Your task to perform on an android device: turn off location history Image 0: 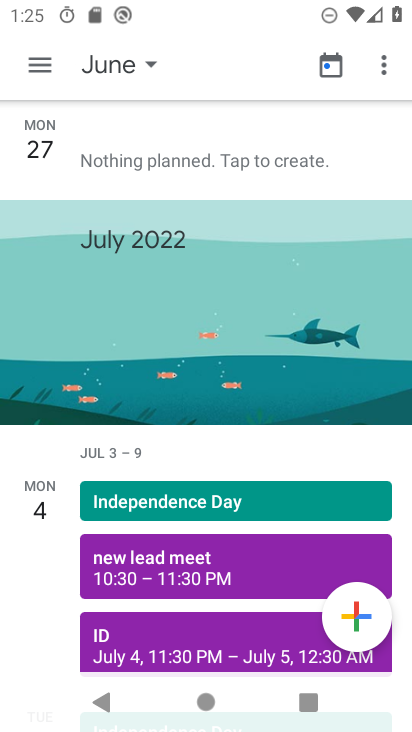
Step 0: press home button
Your task to perform on an android device: turn off location history Image 1: 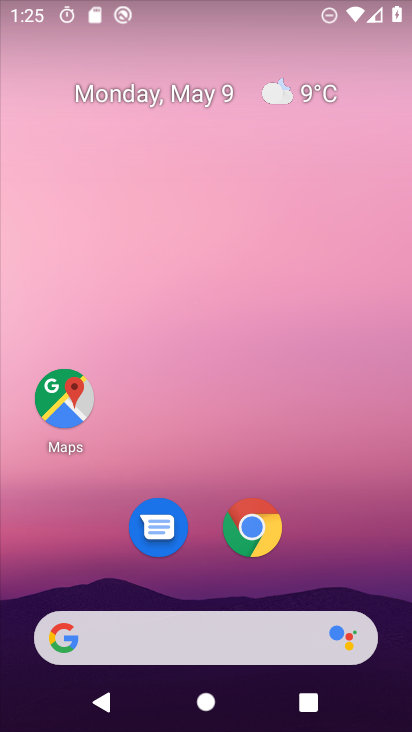
Step 1: drag from (275, 560) to (328, 102)
Your task to perform on an android device: turn off location history Image 2: 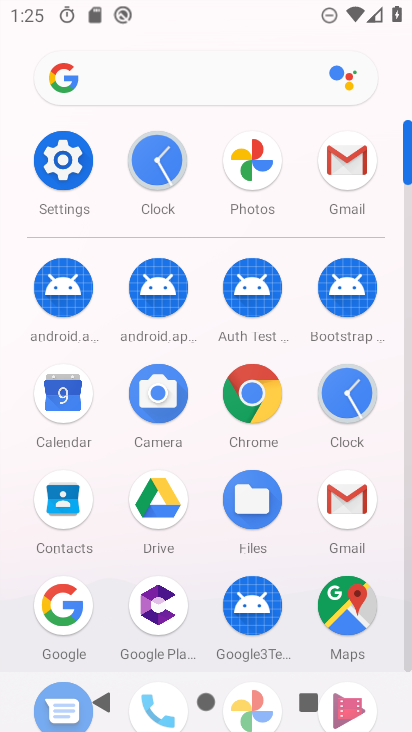
Step 2: click (58, 163)
Your task to perform on an android device: turn off location history Image 3: 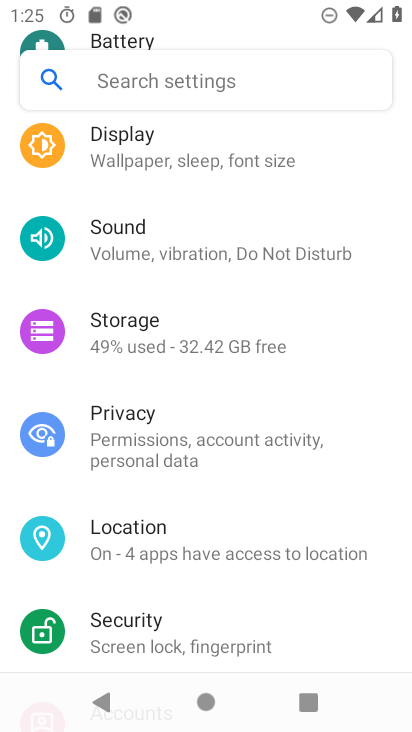
Step 3: click (127, 529)
Your task to perform on an android device: turn off location history Image 4: 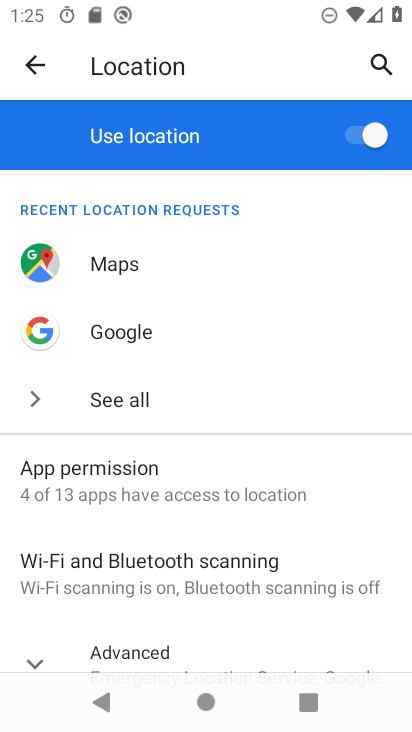
Step 4: drag from (135, 616) to (230, 250)
Your task to perform on an android device: turn off location history Image 5: 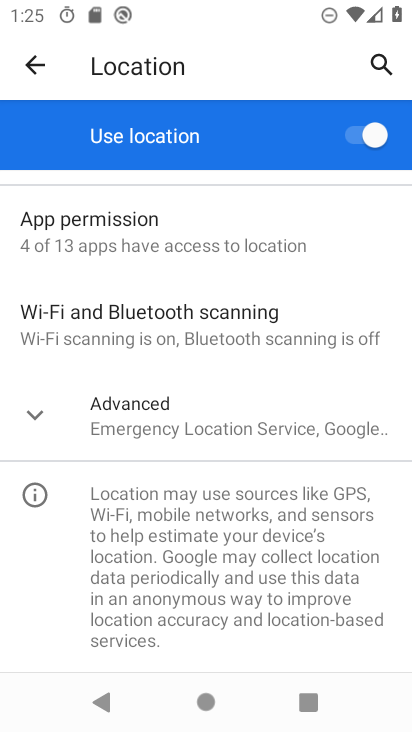
Step 5: click (128, 409)
Your task to perform on an android device: turn off location history Image 6: 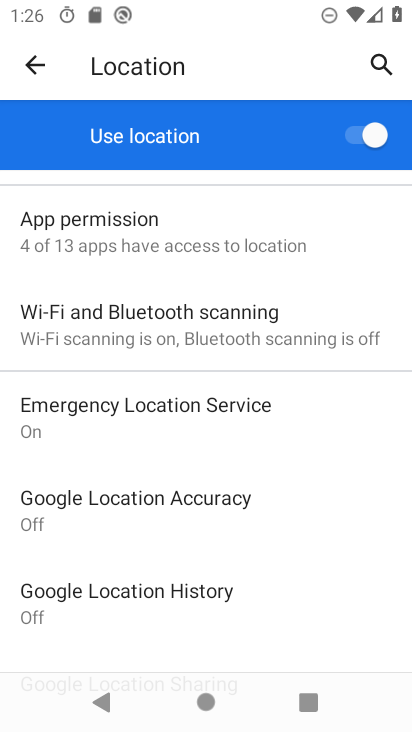
Step 6: click (142, 602)
Your task to perform on an android device: turn off location history Image 7: 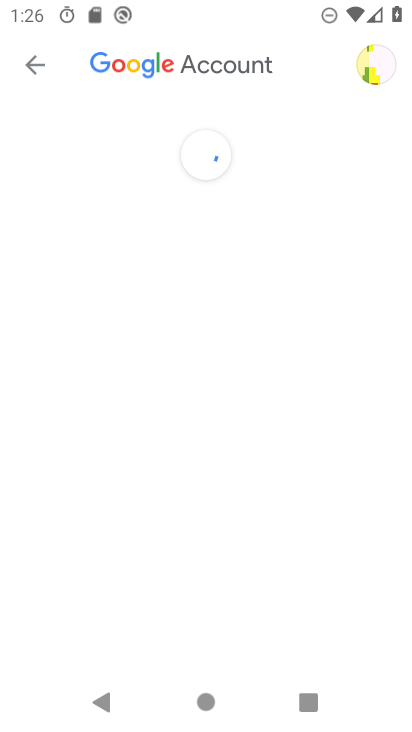
Step 7: task complete